Your task to perform on an android device: clear history in the chrome app Image 0: 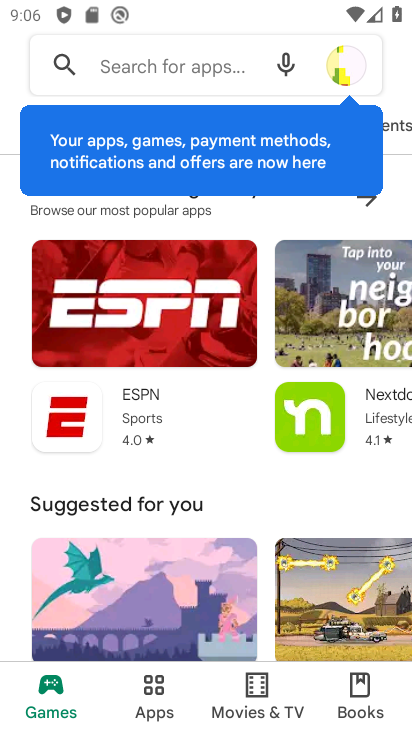
Step 0: press home button
Your task to perform on an android device: clear history in the chrome app Image 1: 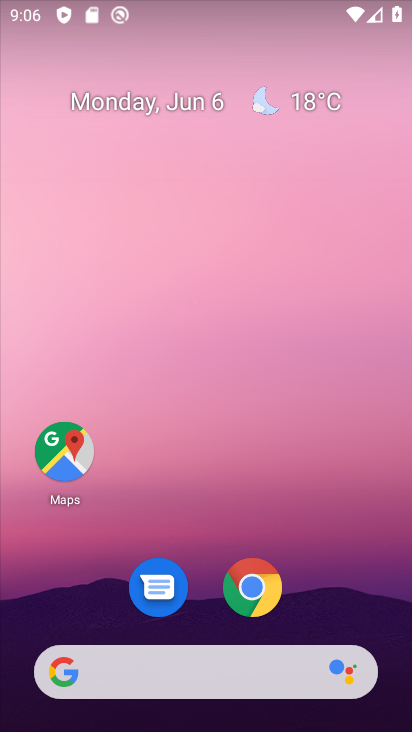
Step 1: drag from (391, 528) to (400, 116)
Your task to perform on an android device: clear history in the chrome app Image 2: 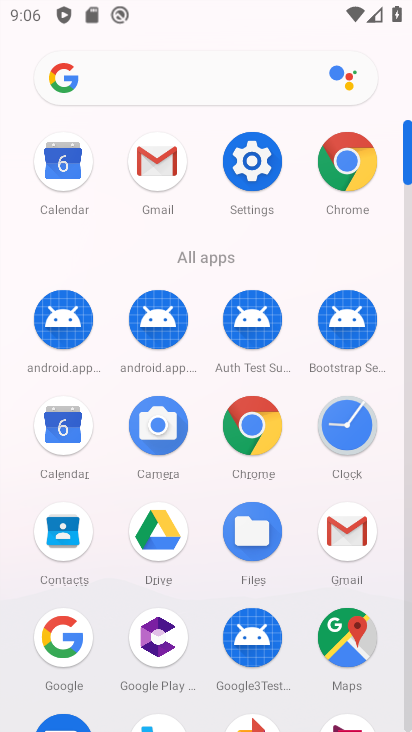
Step 2: click (338, 168)
Your task to perform on an android device: clear history in the chrome app Image 3: 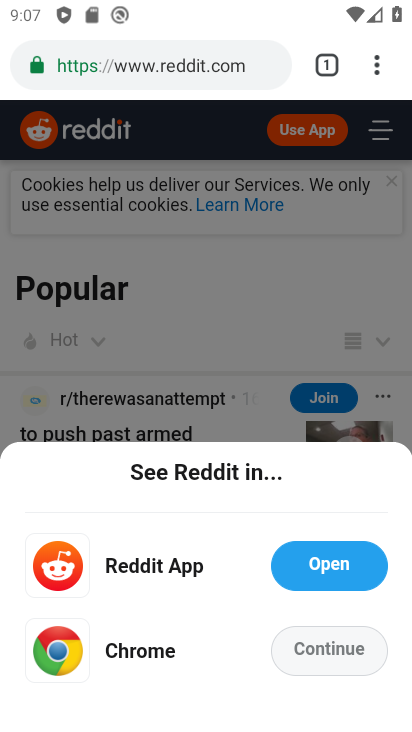
Step 3: drag from (383, 66) to (150, 286)
Your task to perform on an android device: clear history in the chrome app Image 4: 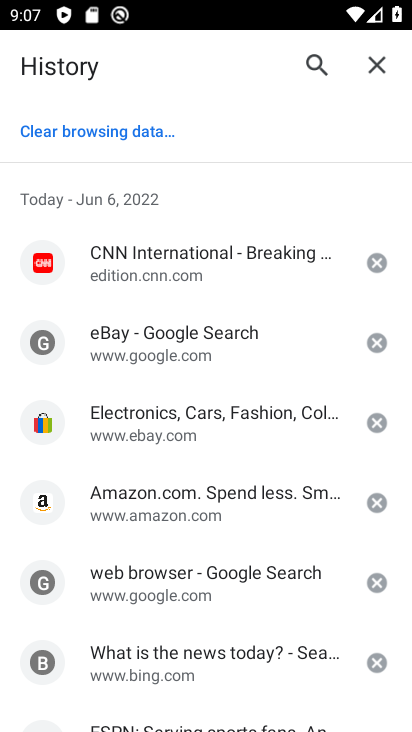
Step 4: click (122, 119)
Your task to perform on an android device: clear history in the chrome app Image 5: 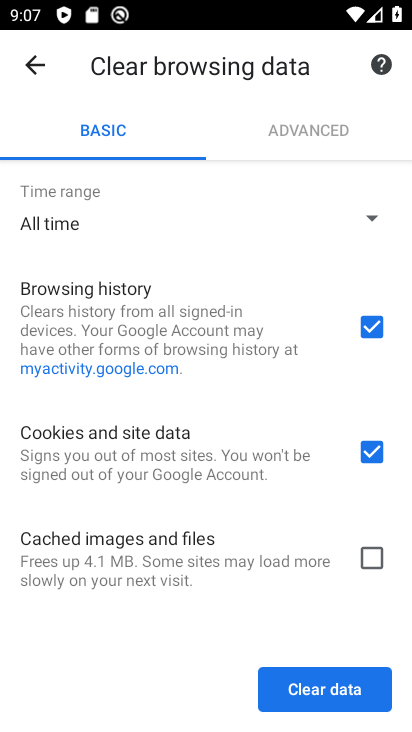
Step 5: click (314, 707)
Your task to perform on an android device: clear history in the chrome app Image 6: 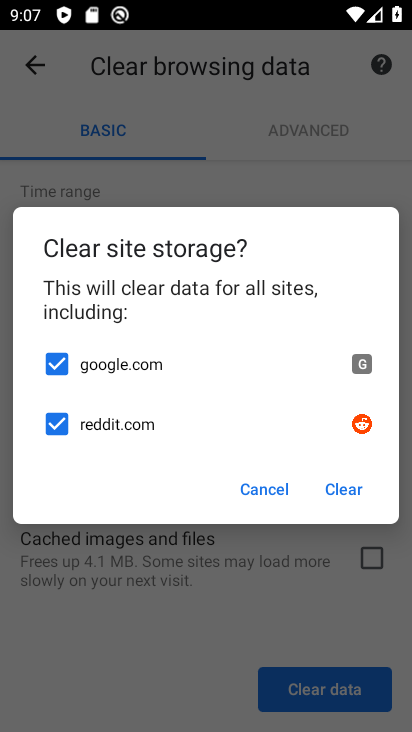
Step 6: click (343, 484)
Your task to perform on an android device: clear history in the chrome app Image 7: 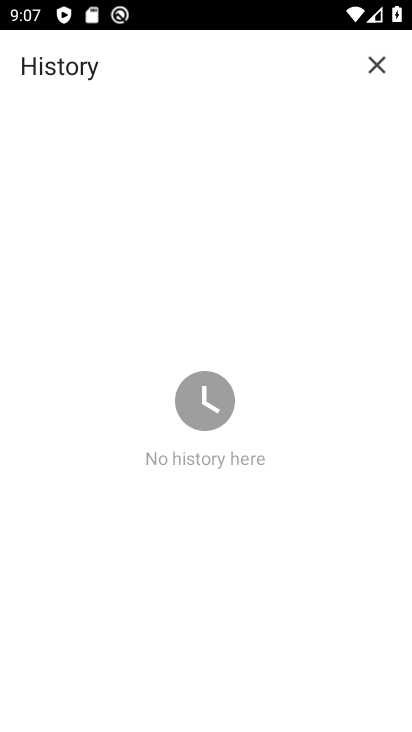
Step 7: task complete